Your task to perform on an android device: remove spam from my inbox in the gmail app Image 0: 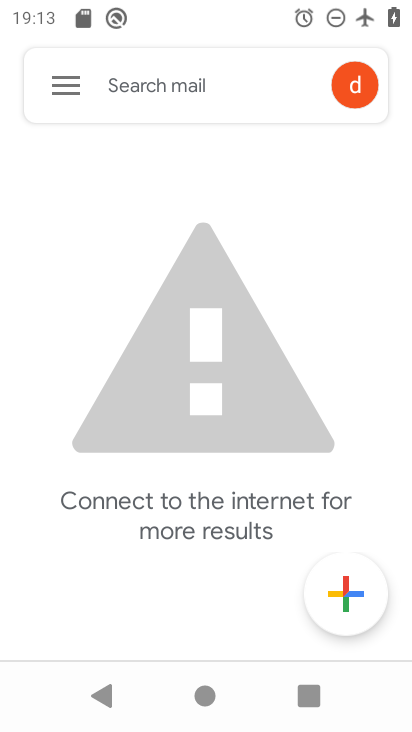
Step 0: click (60, 89)
Your task to perform on an android device: remove spam from my inbox in the gmail app Image 1: 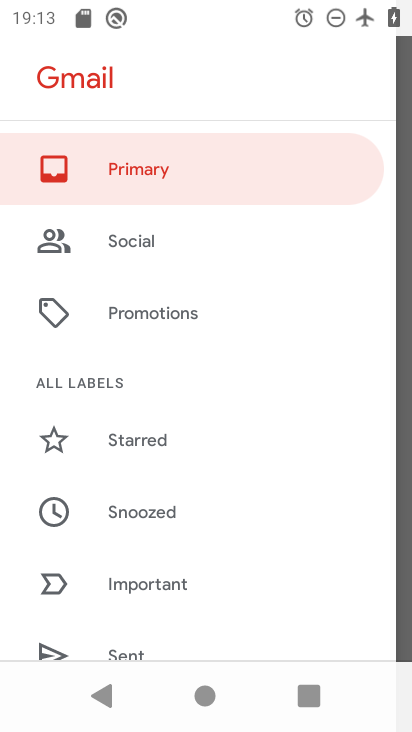
Step 1: drag from (212, 544) to (144, 182)
Your task to perform on an android device: remove spam from my inbox in the gmail app Image 2: 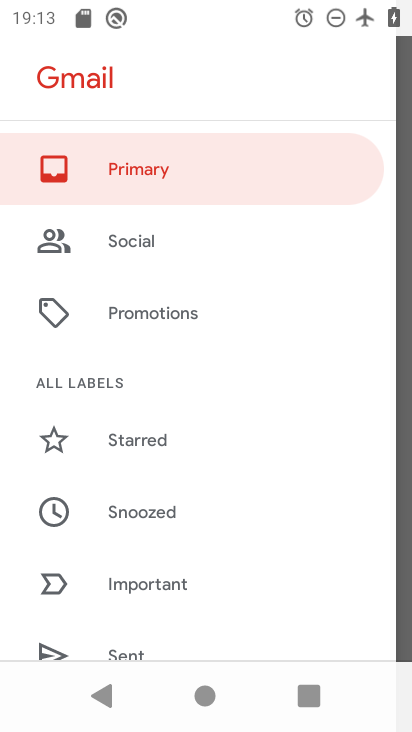
Step 2: drag from (212, 504) to (155, 253)
Your task to perform on an android device: remove spam from my inbox in the gmail app Image 3: 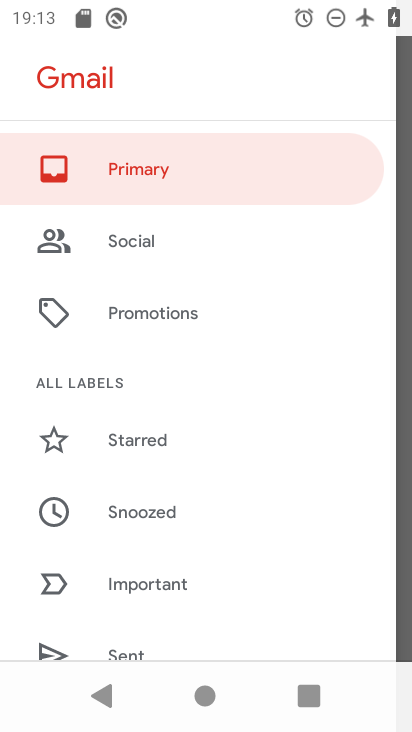
Step 3: drag from (201, 544) to (166, 268)
Your task to perform on an android device: remove spam from my inbox in the gmail app Image 4: 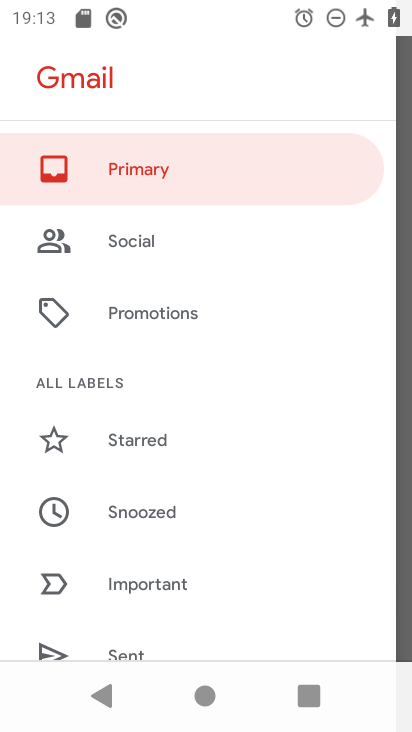
Step 4: drag from (227, 247) to (228, 200)
Your task to perform on an android device: remove spam from my inbox in the gmail app Image 5: 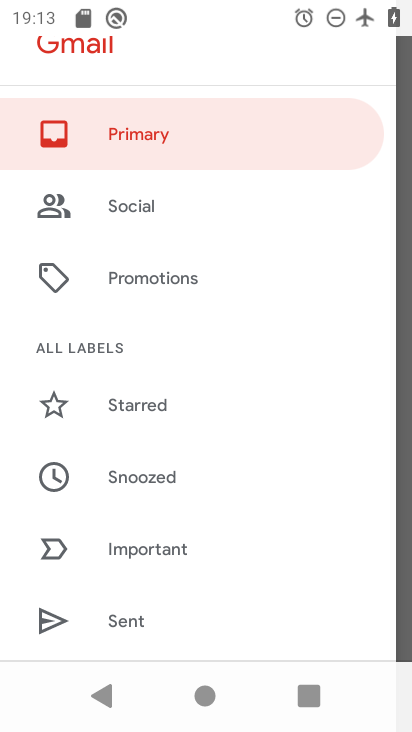
Step 5: drag from (219, 542) to (210, 253)
Your task to perform on an android device: remove spam from my inbox in the gmail app Image 6: 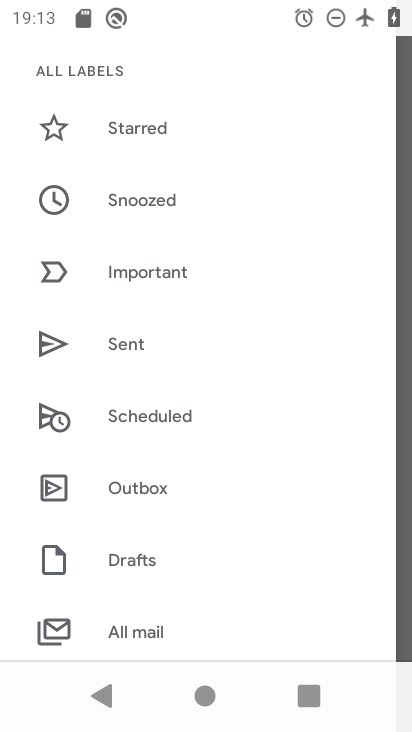
Step 6: drag from (252, 510) to (225, 176)
Your task to perform on an android device: remove spam from my inbox in the gmail app Image 7: 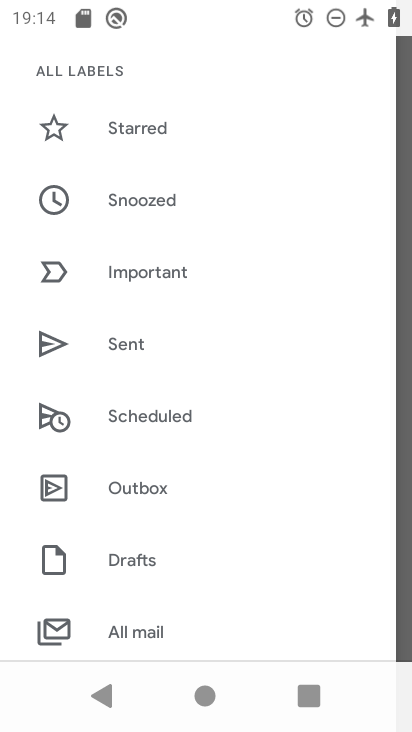
Step 7: drag from (228, 513) to (269, 181)
Your task to perform on an android device: remove spam from my inbox in the gmail app Image 8: 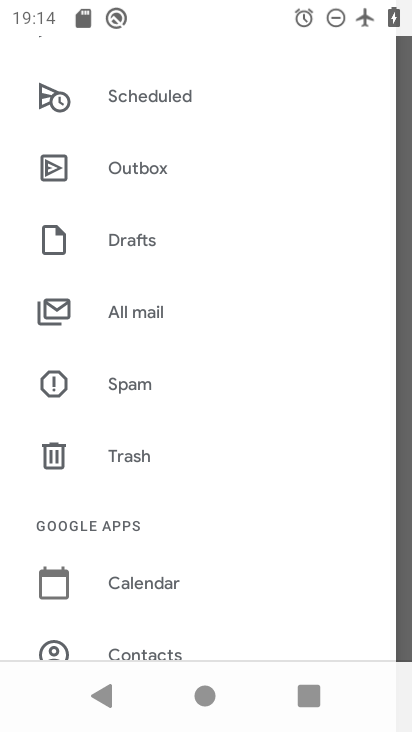
Step 8: click (115, 382)
Your task to perform on an android device: remove spam from my inbox in the gmail app Image 9: 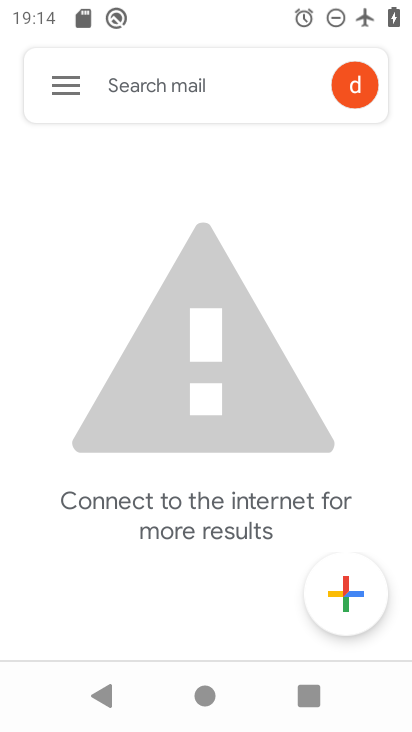
Step 9: task complete